Your task to perform on an android device: Open Google Image 0: 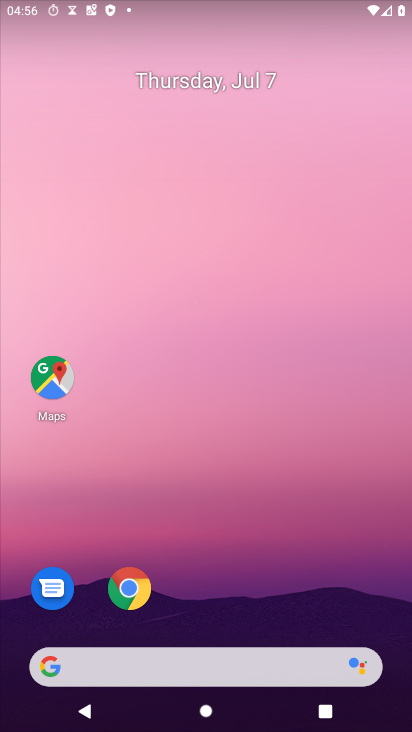
Step 0: press home button
Your task to perform on an android device: Open Google Image 1: 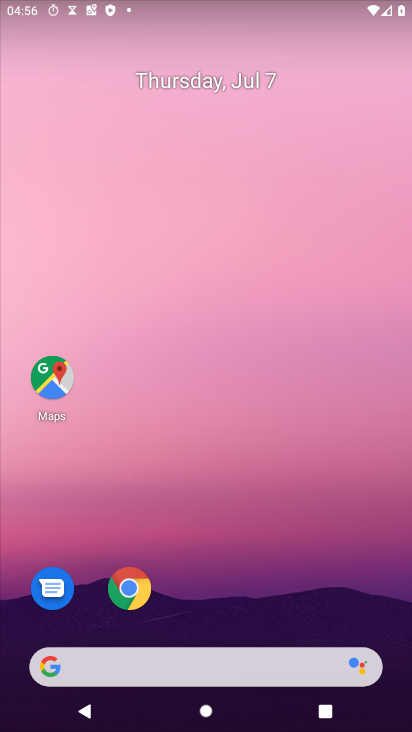
Step 1: click (45, 668)
Your task to perform on an android device: Open Google Image 2: 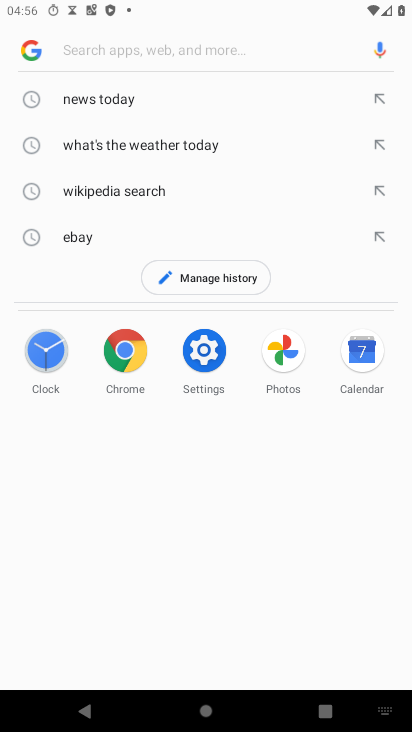
Step 2: task complete